Your task to perform on an android device: Is it going to rain tomorrow? Image 0: 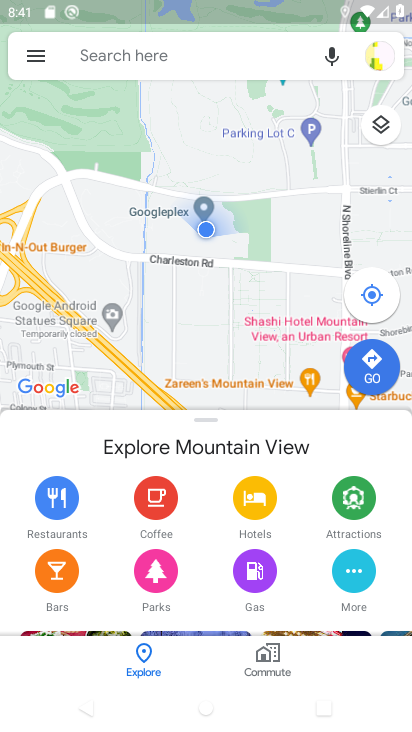
Step 0: press home button
Your task to perform on an android device: Is it going to rain tomorrow? Image 1: 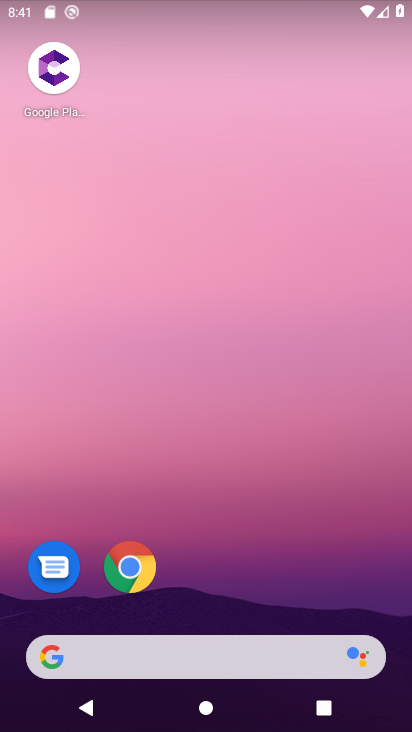
Step 1: drag from (6, 315) to (399, 351)
Your task to perform on an android device: Is it going to rain tomorrow? Image 2: 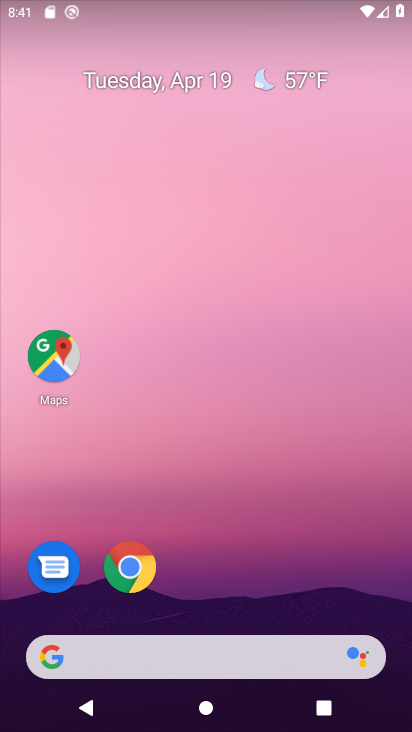
Step 2: drag from (7, 276) to (399, 220)
Your task to perform on an android device: Is it going to rain tomorrow? Image 3: 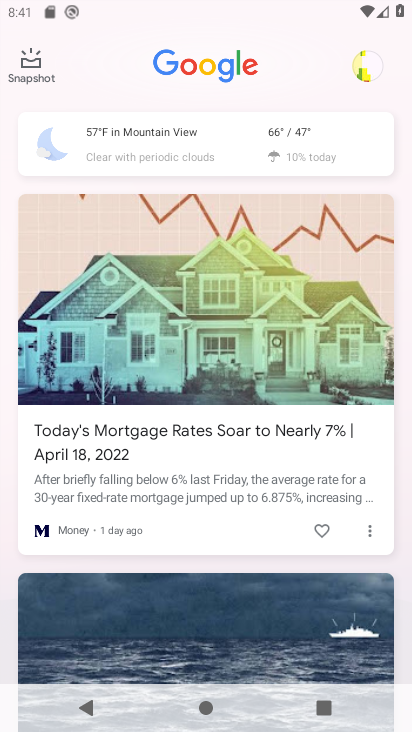
Step 3: click (189, 141)
Your task to perform on an android device: Is it going to rain tomorrow? Image 4: 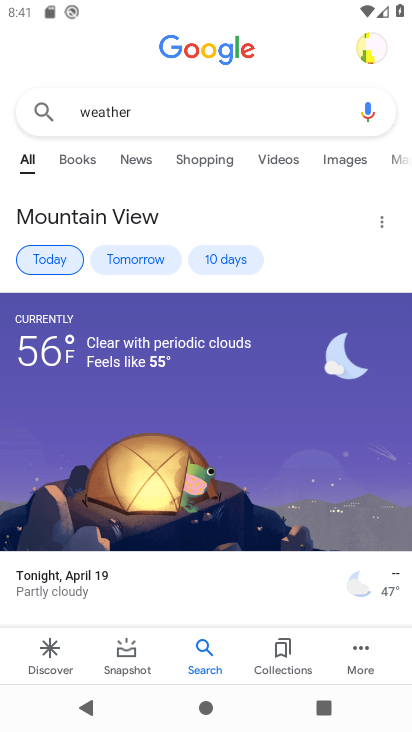
Step 4: click (129, 253)
Your task to perform on an android device: Is it going to rain tomorrow? Image 5: 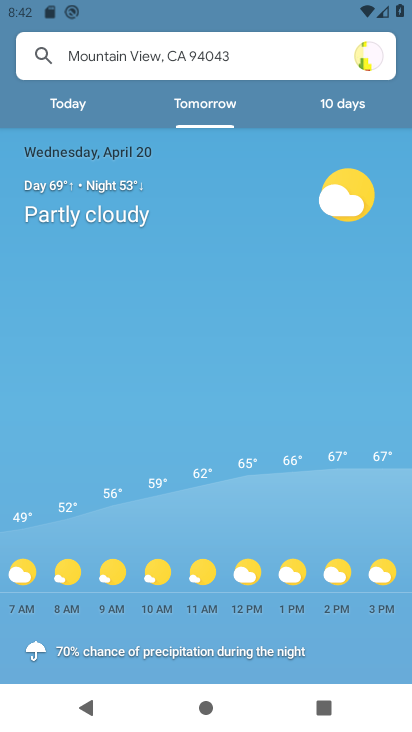
Step 5: task complete